Your task to perform on an android device: change text size in settings app Image 0: 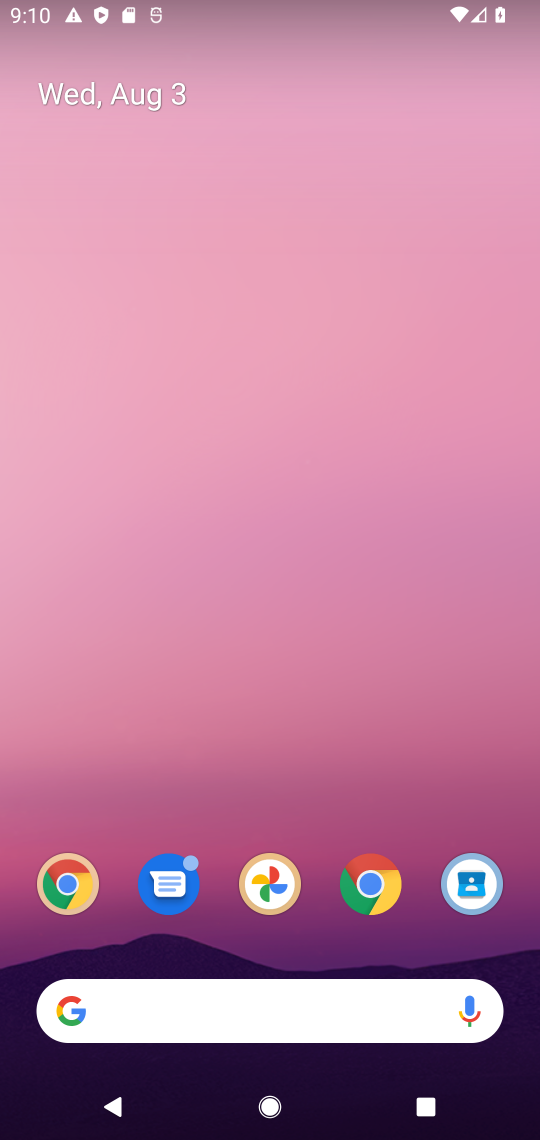
Step 0: drag from (397, 751) to (358, 240)
Your task to perform on an android device: change text size in settings app Image 1: 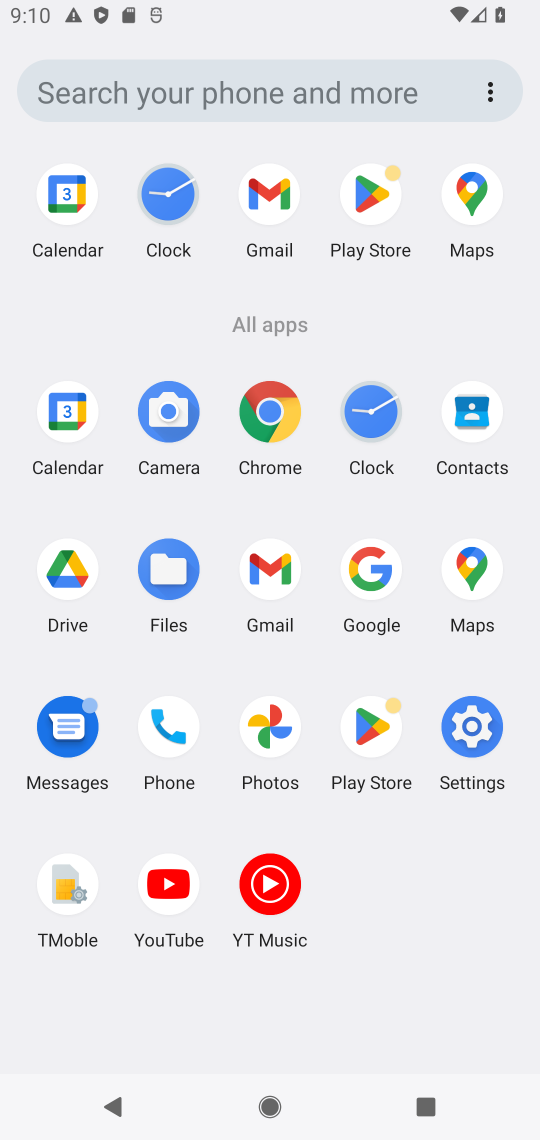
Step 1: click (466, 694)
Your task to perform on an android device: change text size in settings app Image 2: 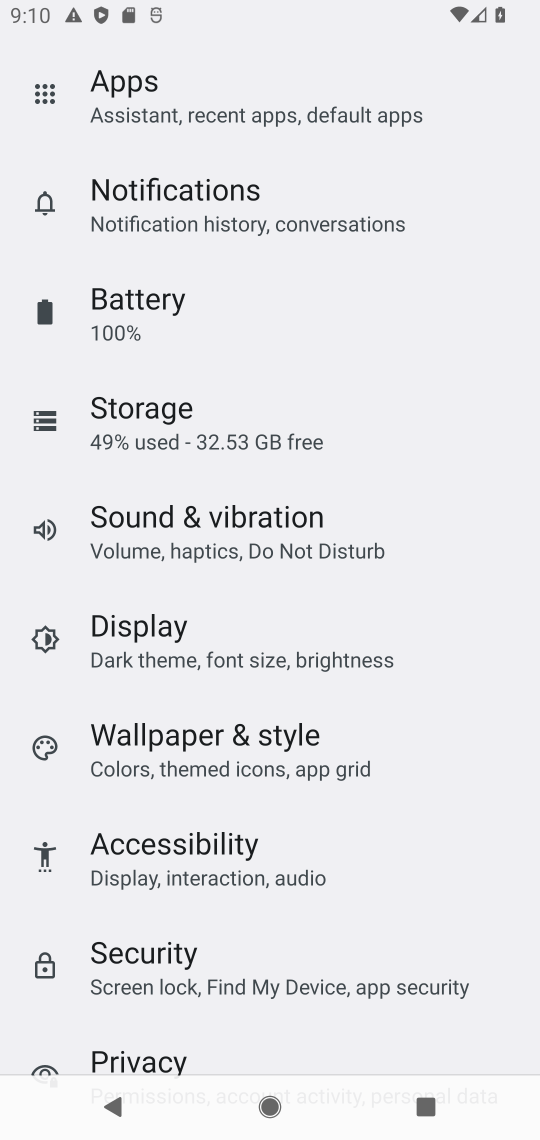
Step 2: click (138, 618)
Your task to perform on an android device: change text size in settings app Image 3: 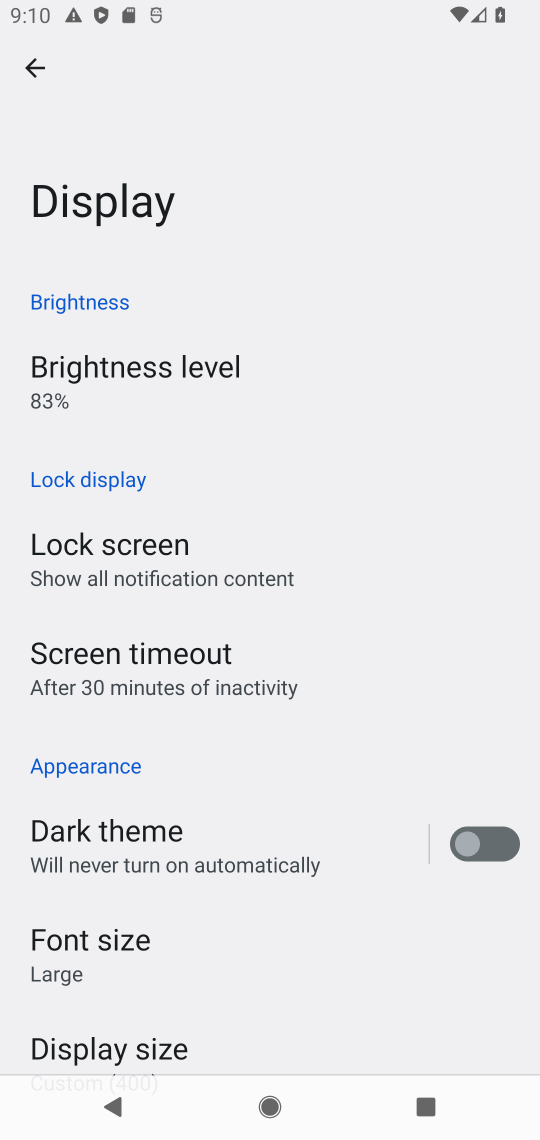
Step 3: click (76, 964)
Your task to perform on an android device: change text size in settings app Image 4: 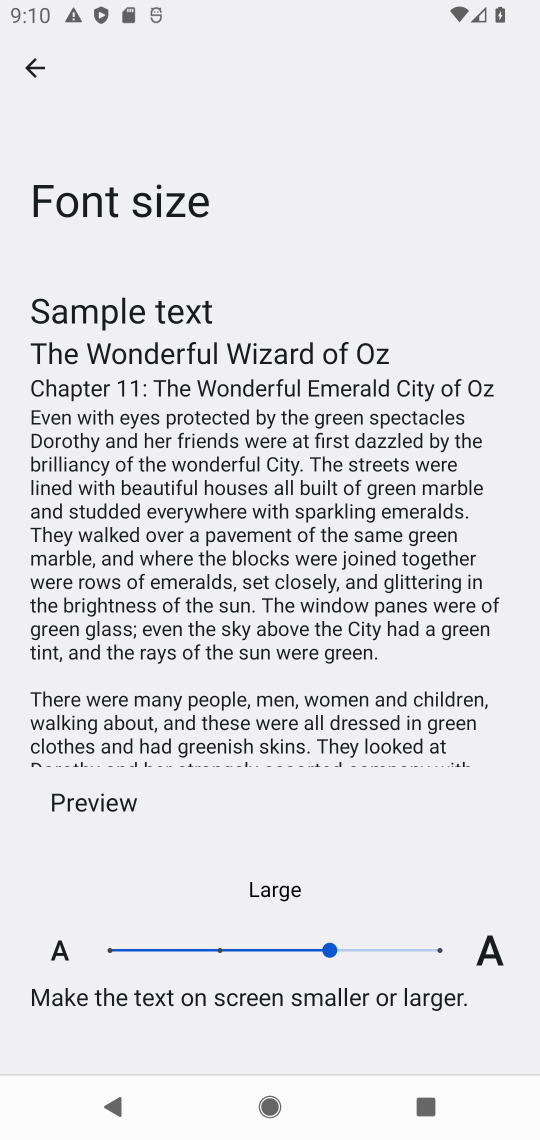
Step 4: click (61, 962)
Your task to perform on an android device: change text size in settings app Image 5: 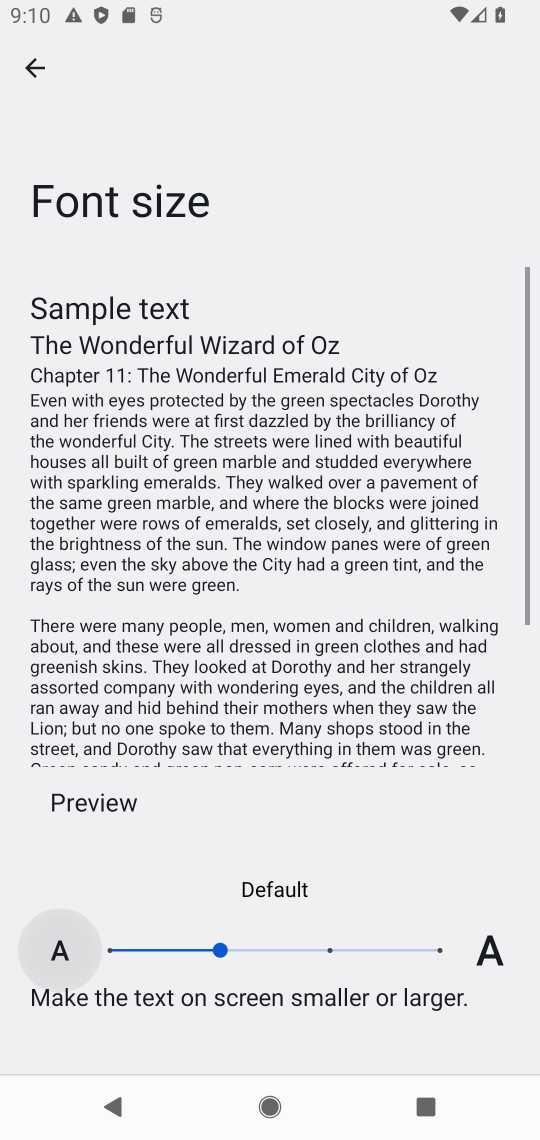
Step 5: click (494, 936)
Your task to perform on an android device: change text size in settings app Image 6: 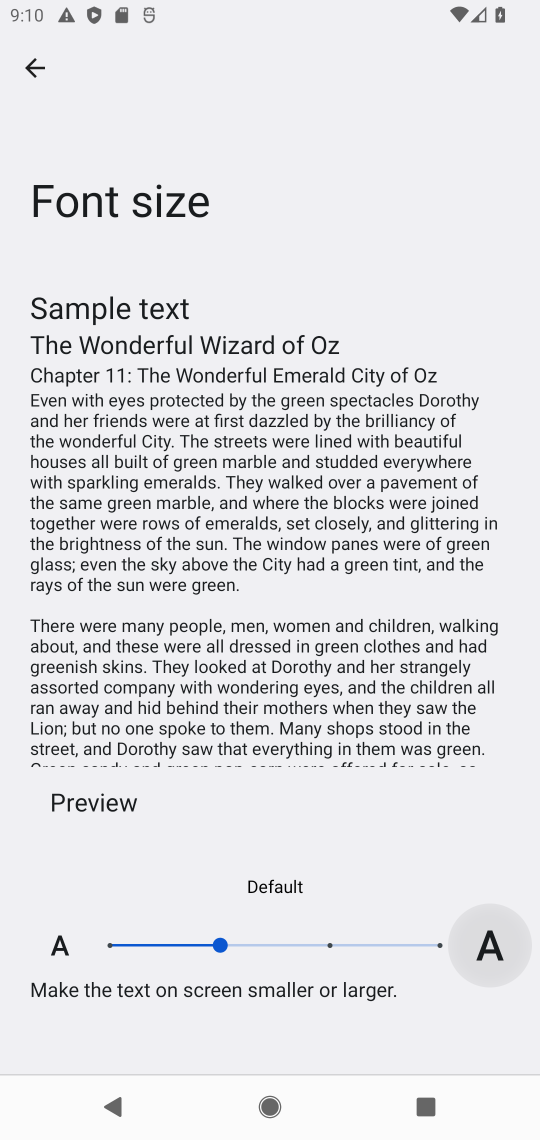
Step 6: click (489, 933)
Your task to perform on an android device: change text size in settings app Image 7: 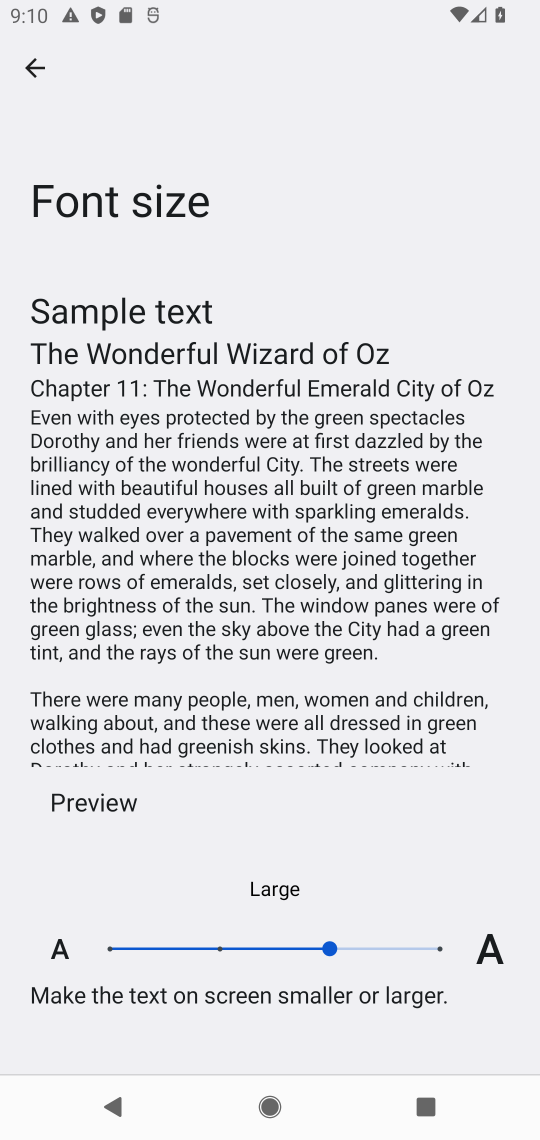
Step 7: click (473, 949)
Your task to perform on an android device: change text size in settings app Image 8: 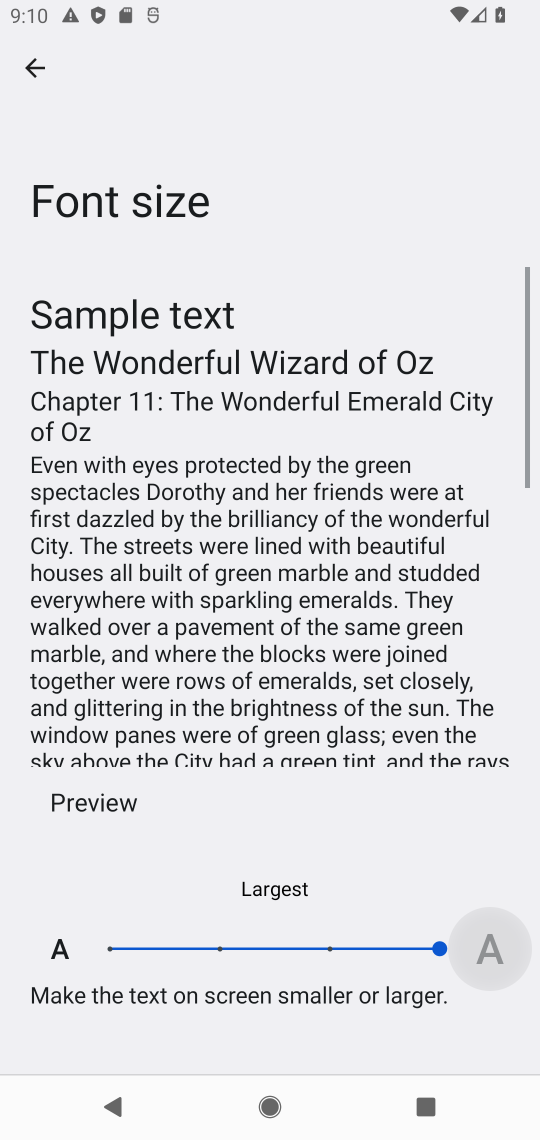
Step 8: task complete